Your task to perform on an android device: Is it going to rain this weekend? Image 0: 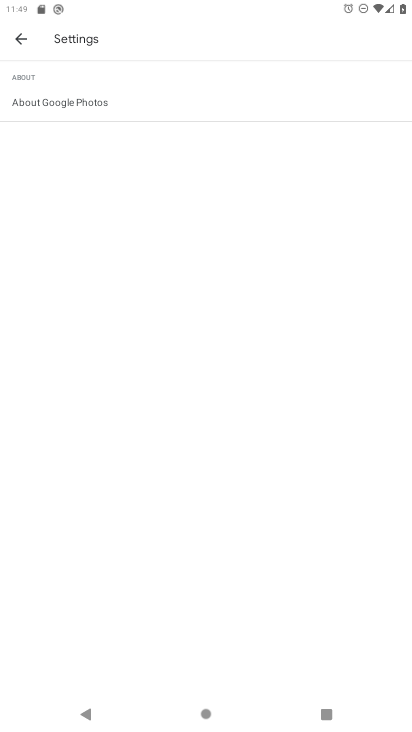
Step 0: press home button
Your task to perform on an android device: Is it going to rain this weekend? Image 1: 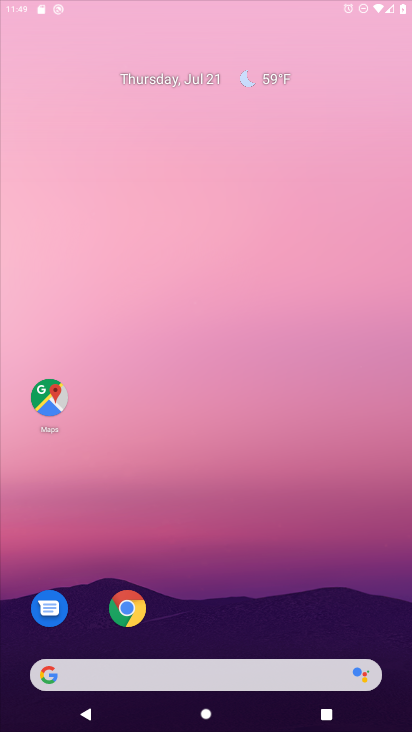
Step 1: drag from (396, 674) to (181, 36)
Your task to perform on an android device: Is it going to rain this weekend? Image 2: 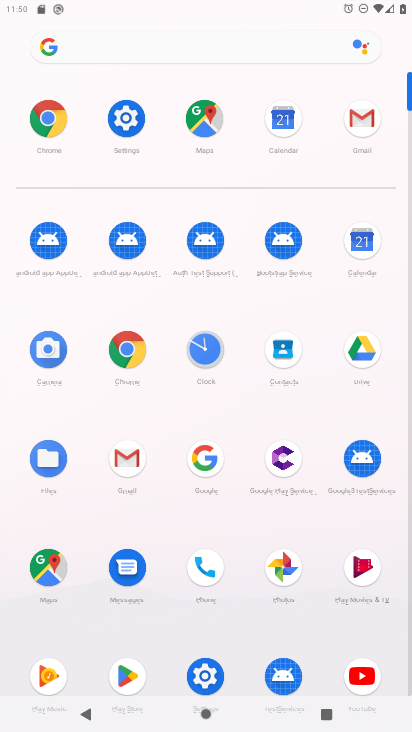
Step 2: click (195, 458)
Your task to perform on an android device: Is it going to rain this weekend? Image 3: 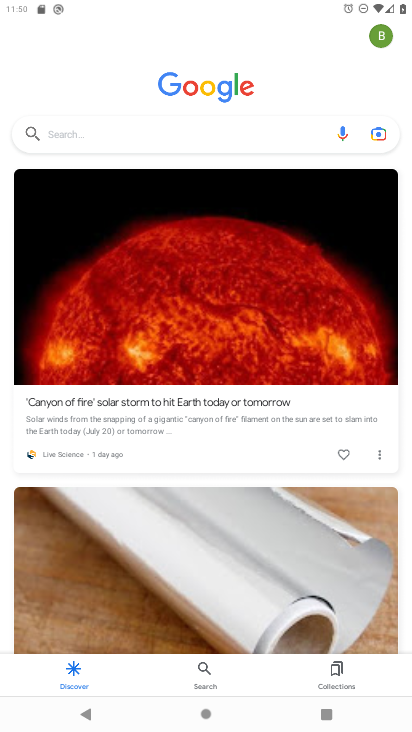
Step 3: click (72, 131)
Your task to perform on an android device: Is it going to rain this weekend? Image 4: 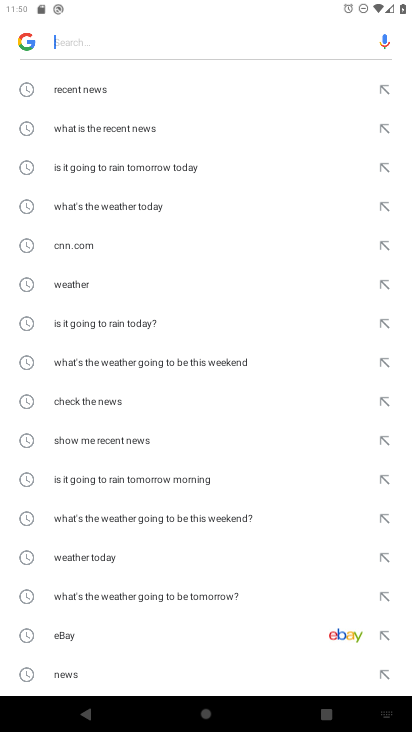
Step 4: type "Is it going to rain this weekend?"
Your task to perform on an android device: Is it going to rain this weekend? Image 5: 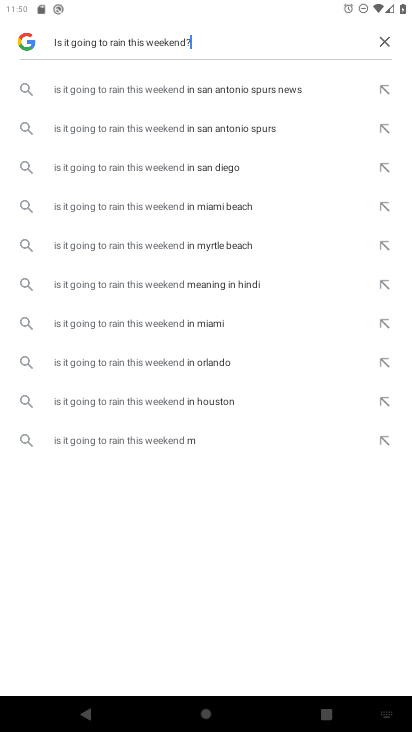
Step 5: type "Is it going to rain this weekend?"
Your task to perform on an android device: Is it going to rain this weekend? Image 6: 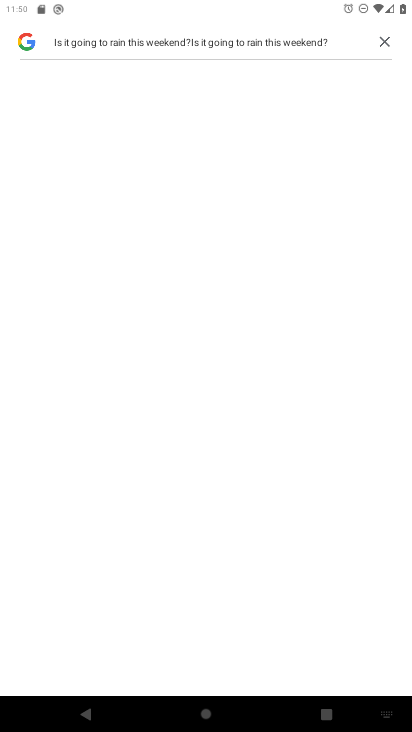
Step 6: task complete